Your task to perform on an android device: Show me popular games on the Play Store Image 0: 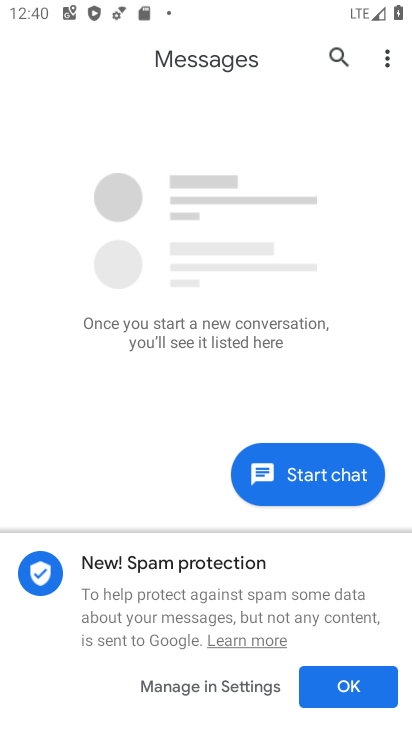
Step 0: press home button
Your task to perform on an android device: Show me popular games on the Play Store Image 1: 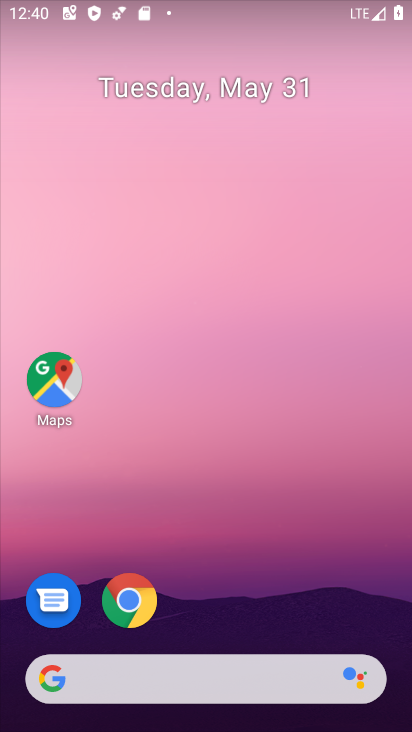
Step 1: drag from (218, 715) to (213, 167)
Your task to perform on an android device: Show me popular games on the Play Store Image 2: 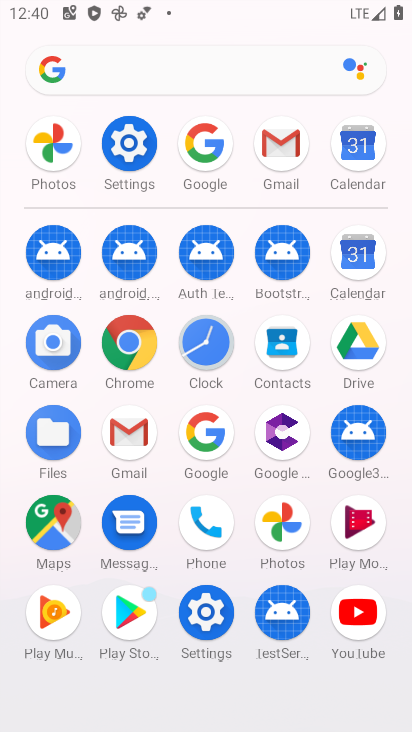
Step 2: click (123, 603)
Your task to perform on an android device: Show me popular games on the Play Store Image 3: 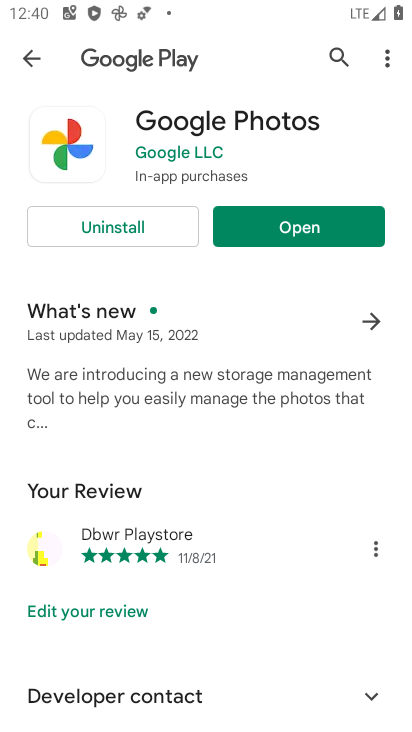
Step 3: click (31, 54)
Your task to perform on an android device: Show me popular games on the Play Store Image 4: 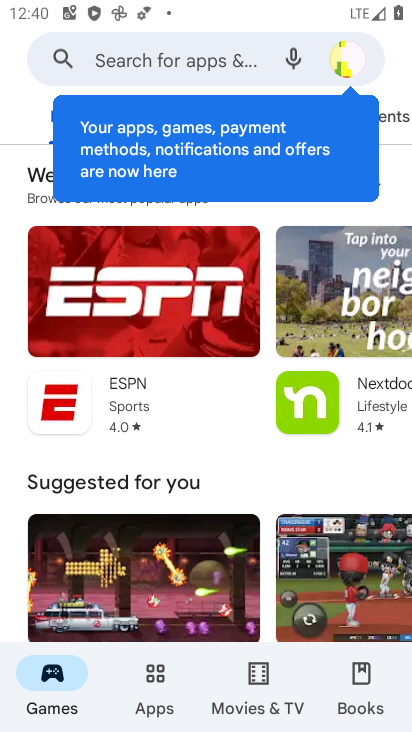
Step 4: drag from (238, 598) to (235, 172)
Your task to perform on an android device: Show me popular games on the Play Store Image 5: 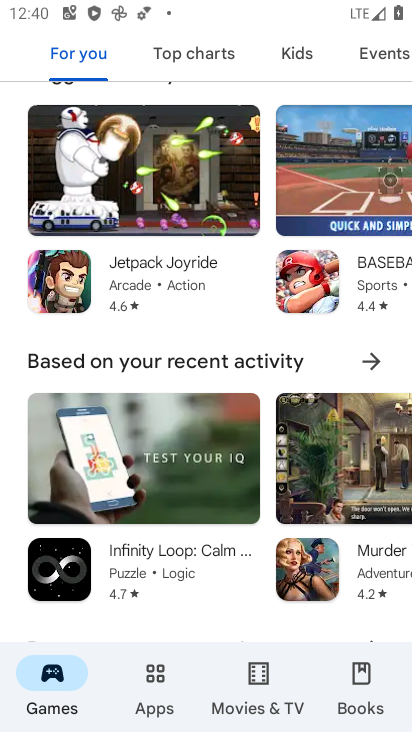
Step 5: drag from (215, 611) to (199, 210)
Your task to perform on an android device: Show me popular games on the Play Store Image 6: 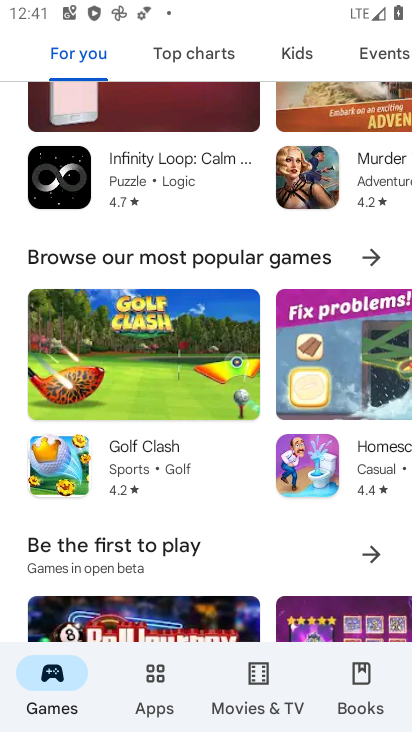
Step 6: click (266, 258)
Your task to perform on an android device: Show me popular games on the Play Store Image 7: 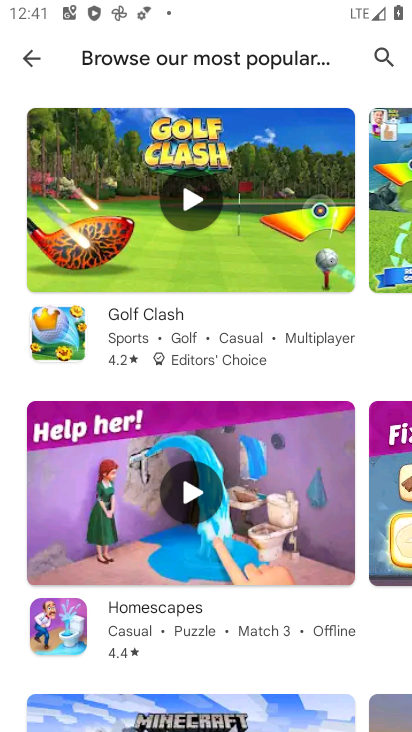
Step 7: task complete